Your task to perform on an android device: Open Google Maps Image 0: 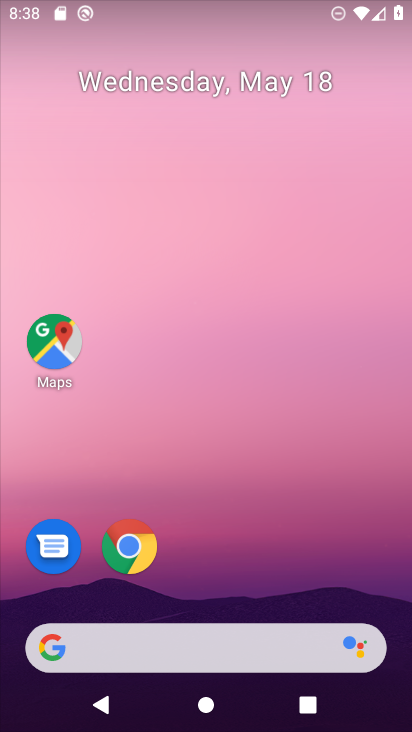
Step 0: drag from (249, 676) to (386, 184)
Your task to perform on an android device: Open Google Maps Image 1: 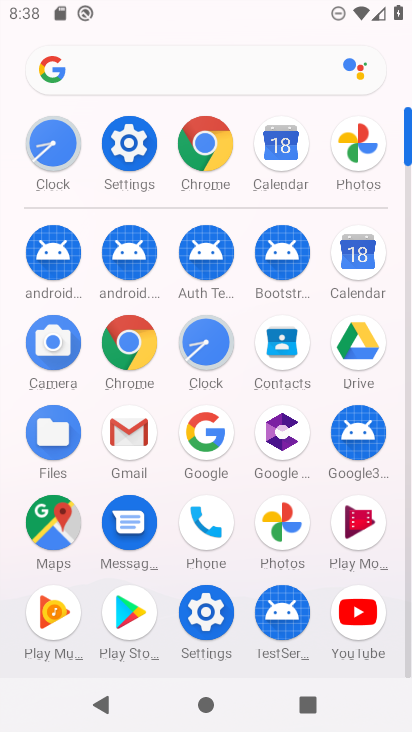
Step 1: click (45, 533)
Your task to perform on an android device: Open Google Maps Image 2: 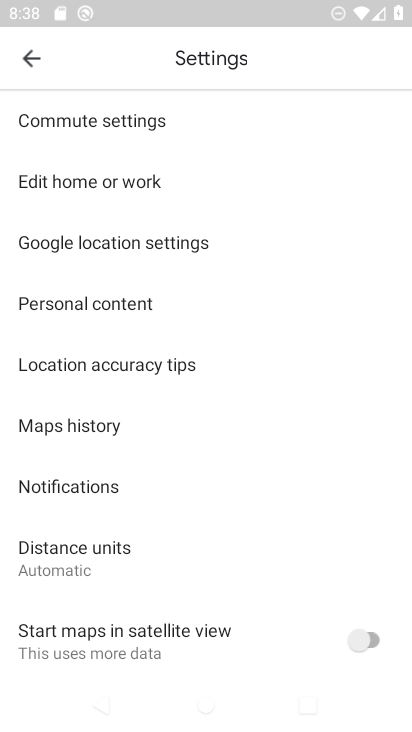
Step 2: click (29, 54)
Your task to perform on an android device: Open Google Maps Image 3: 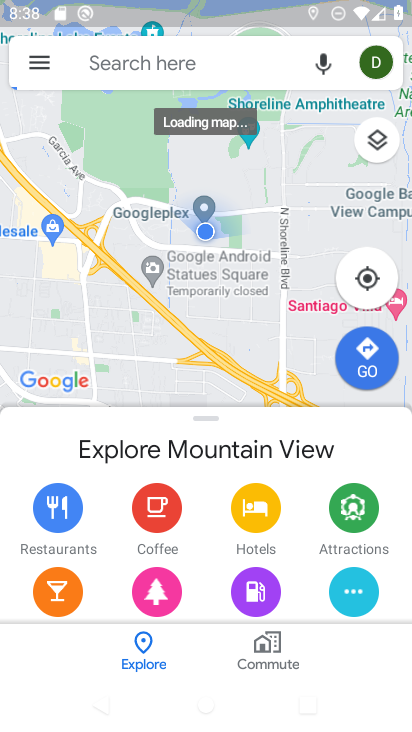
Step 3: click (356, 273)
Your task to perform on an android device: Open Google Maps Image 4: 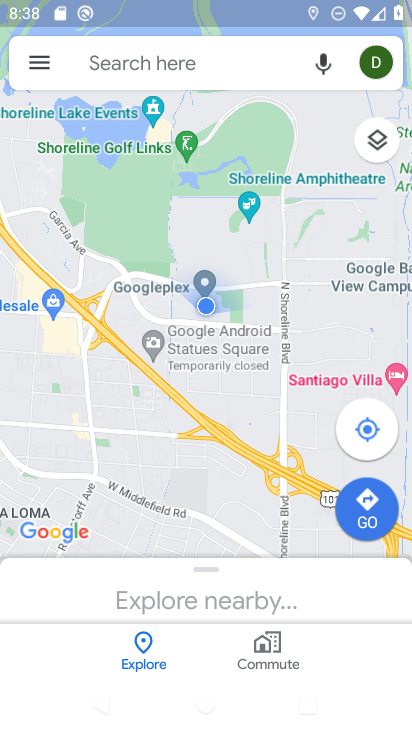
Step 4: task complete